Your task to perform on an android device: change notifications settings Image 0: 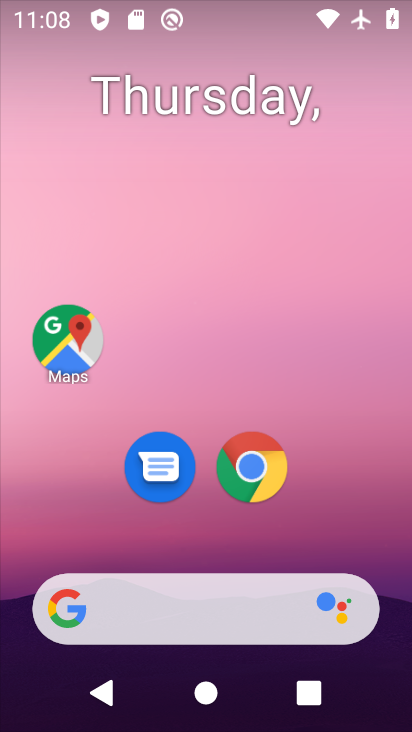
Step 0: drag from (365, 572) to (328, 6)
Your task to perform on an android device: change notifications settings Image 1: 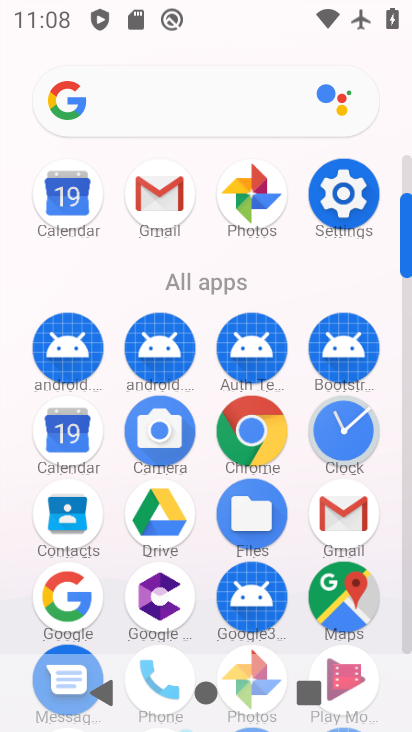
Step 1: click (340, 190)
Your task to perform on an android device: change notifications settings Image 2: 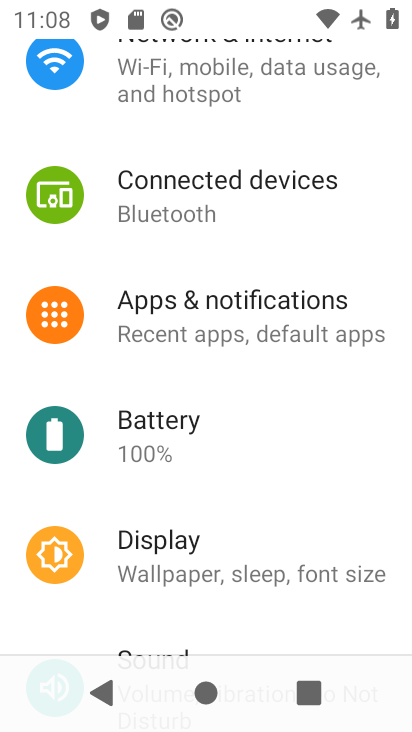
Step 2: drag from (335, 184) to (359, 443)
Your task to perform on an android device: change notifications settings Image 3: 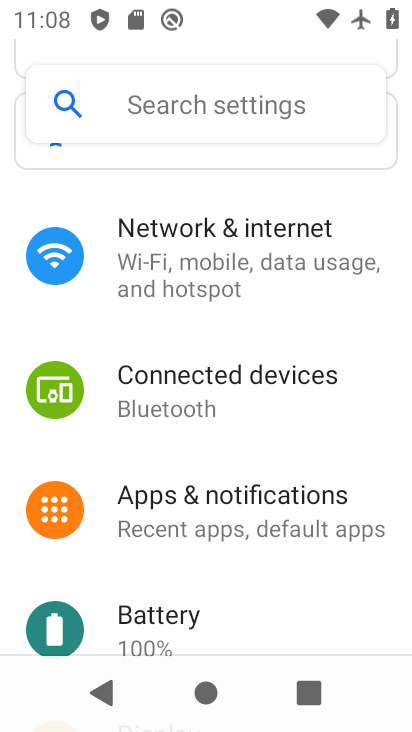
Step 3: click (255, 509)
Your task to perform on an android device: change notifications settings Image 4: 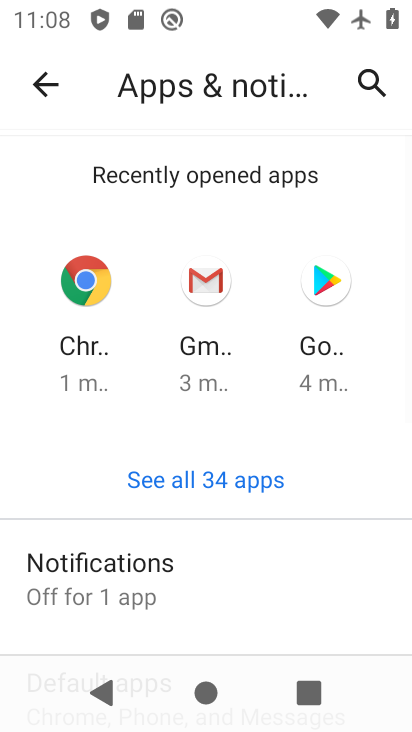
Step 4: drag from (253, 545) to (246, 206)
Your task to perform on an android device: change notifications settings Image 5: 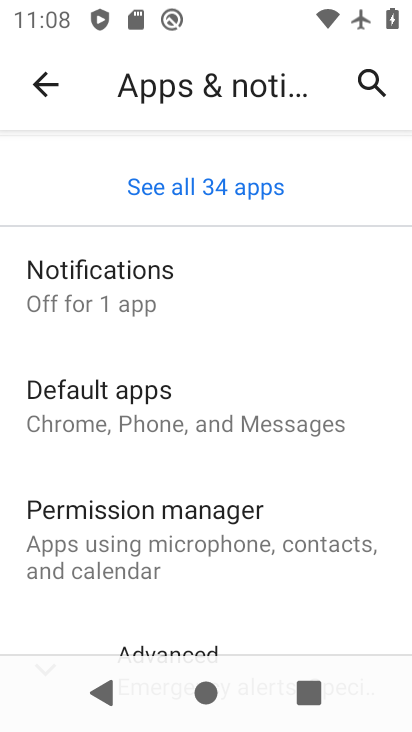
Step 5: click (93, 303)
Your task to perform on an android device: change notifications settings Image 6: 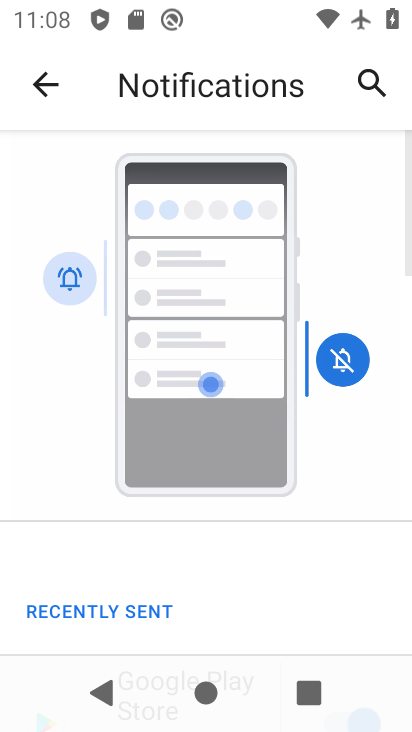
Step 6: drag from (222, 523) to (213, 131)
Your task to perform on an android device: change notifications settings Image 7: 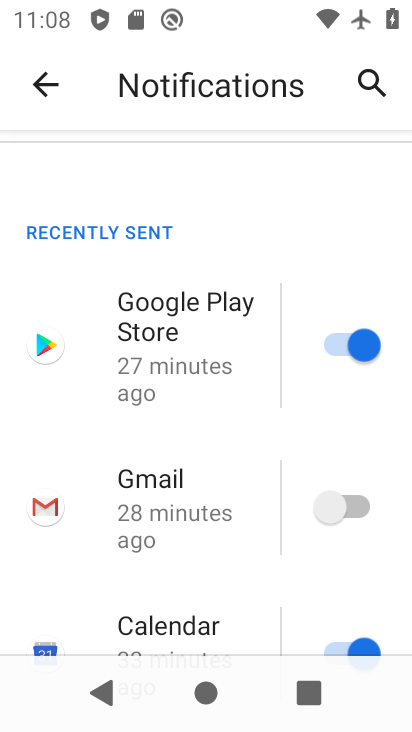
Step 7: drag from (198, 457) to (182, 96)
Your task to perform on an android device: change notifications settings Image 8: 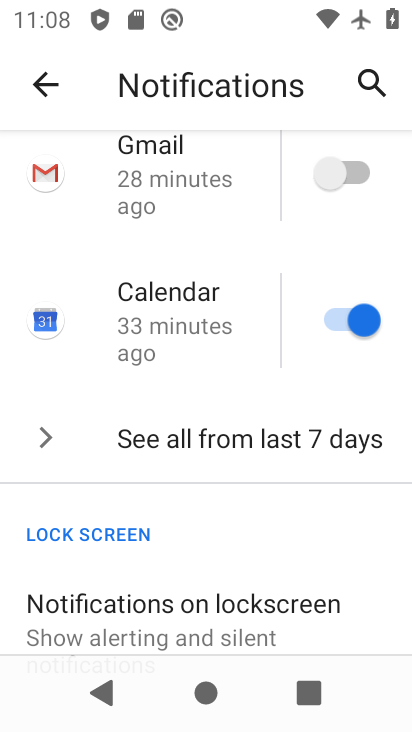
Step 8: click (166, 441)
Your task to perform on an android device: change notifications settings Image 9: 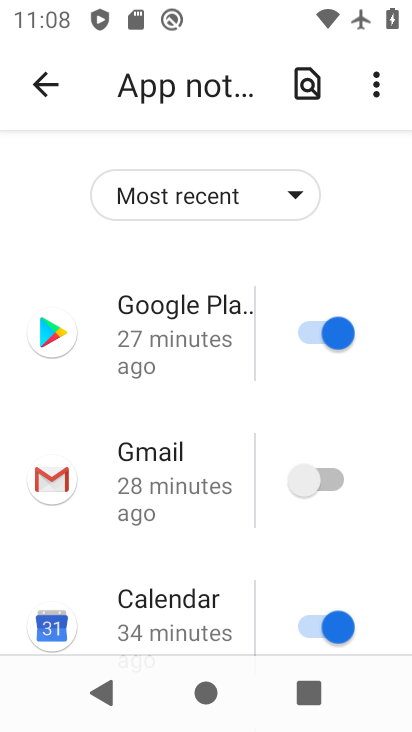
Step 9: click (297, 195)
Your task to perform on an android device: change notifications settings Image 10: 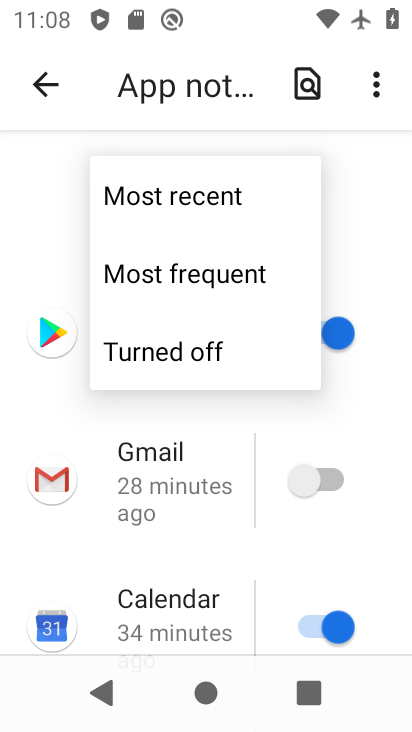
Step 10: click (167, 276)
Your task to perform on an android device: change notifications settings Image 11: 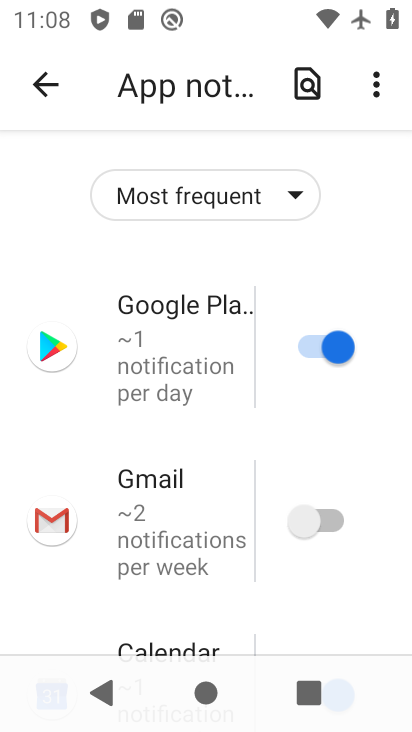
Step 11: task complete